Your task to perform on an android device: turn on notifications settings in the gmail app Image 0: 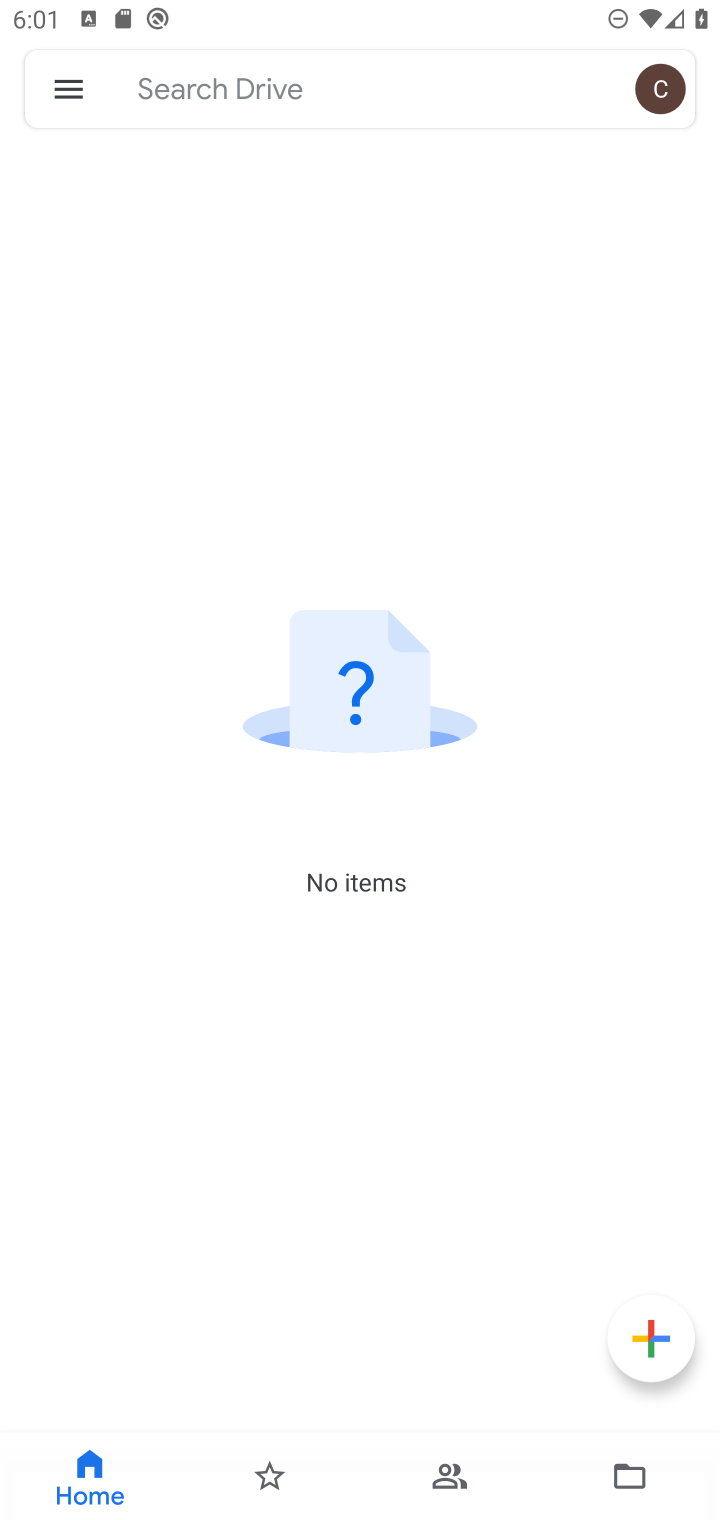
Step 0: press home button
Your task to perform on an android device: turn on notifications settings in the gmail app Image 1: 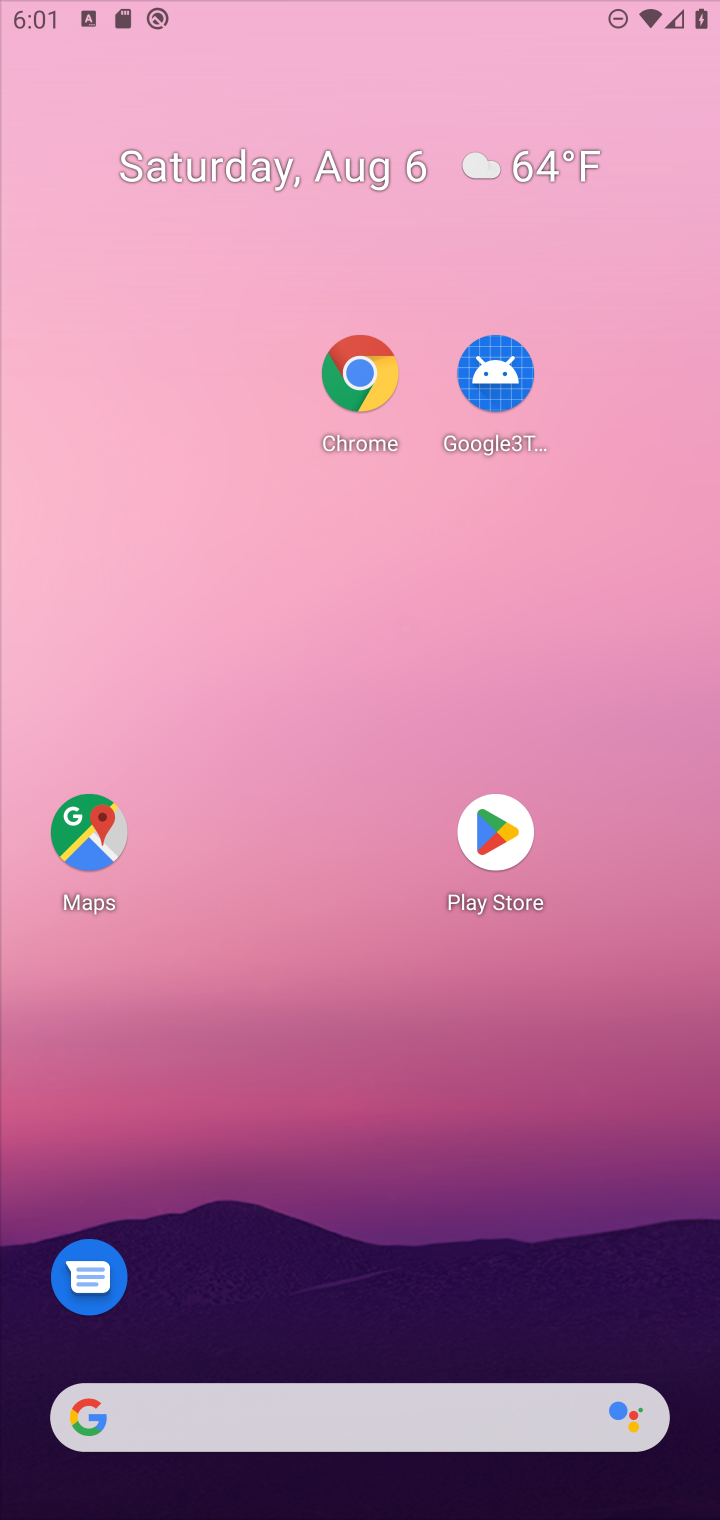
Step 1: drag from (393, 1392) to (393, 121)
Your task to perform on an android device: turn on notifications settings in the gmail app Image 2: 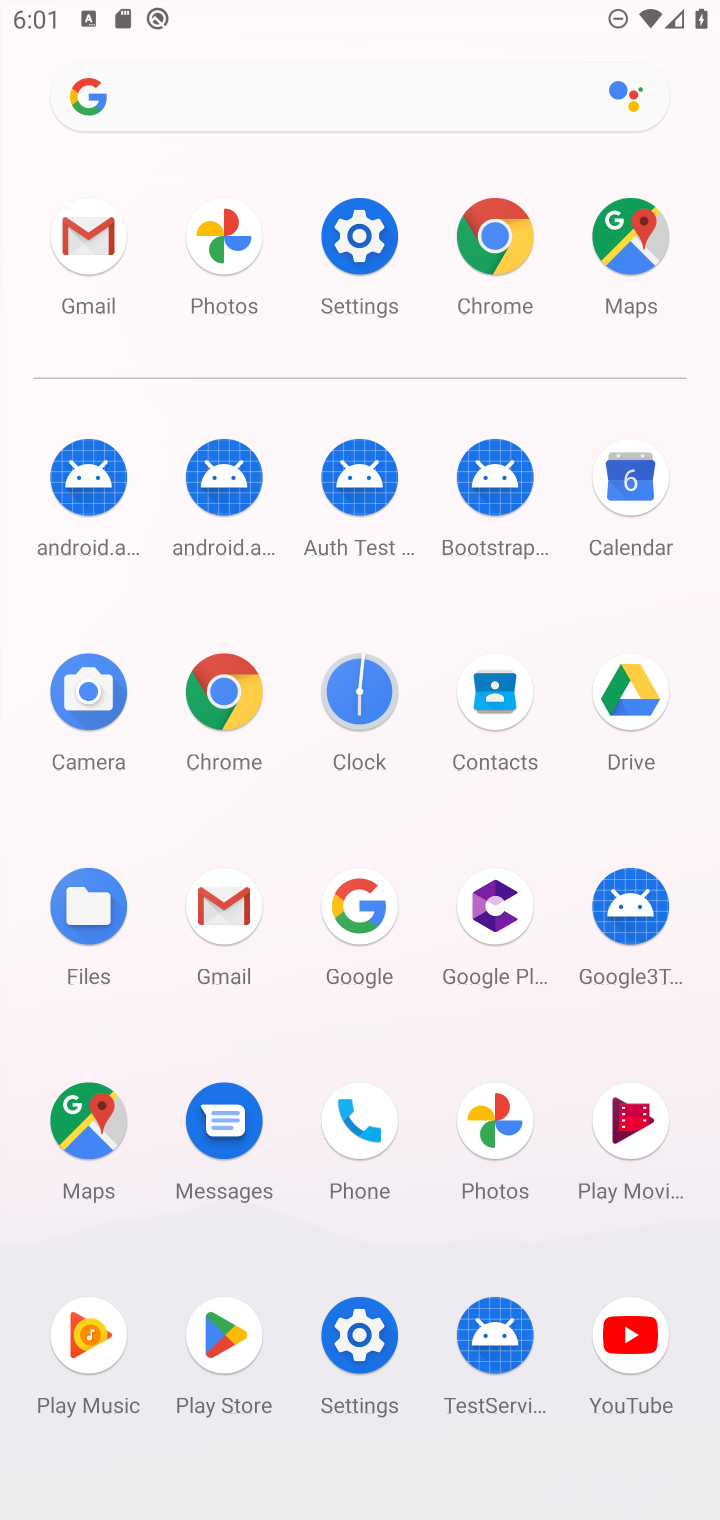
Step 2: click (208, 894)
Your task to perform on an android device: turn on notifications settings in the gmail app Image 3: 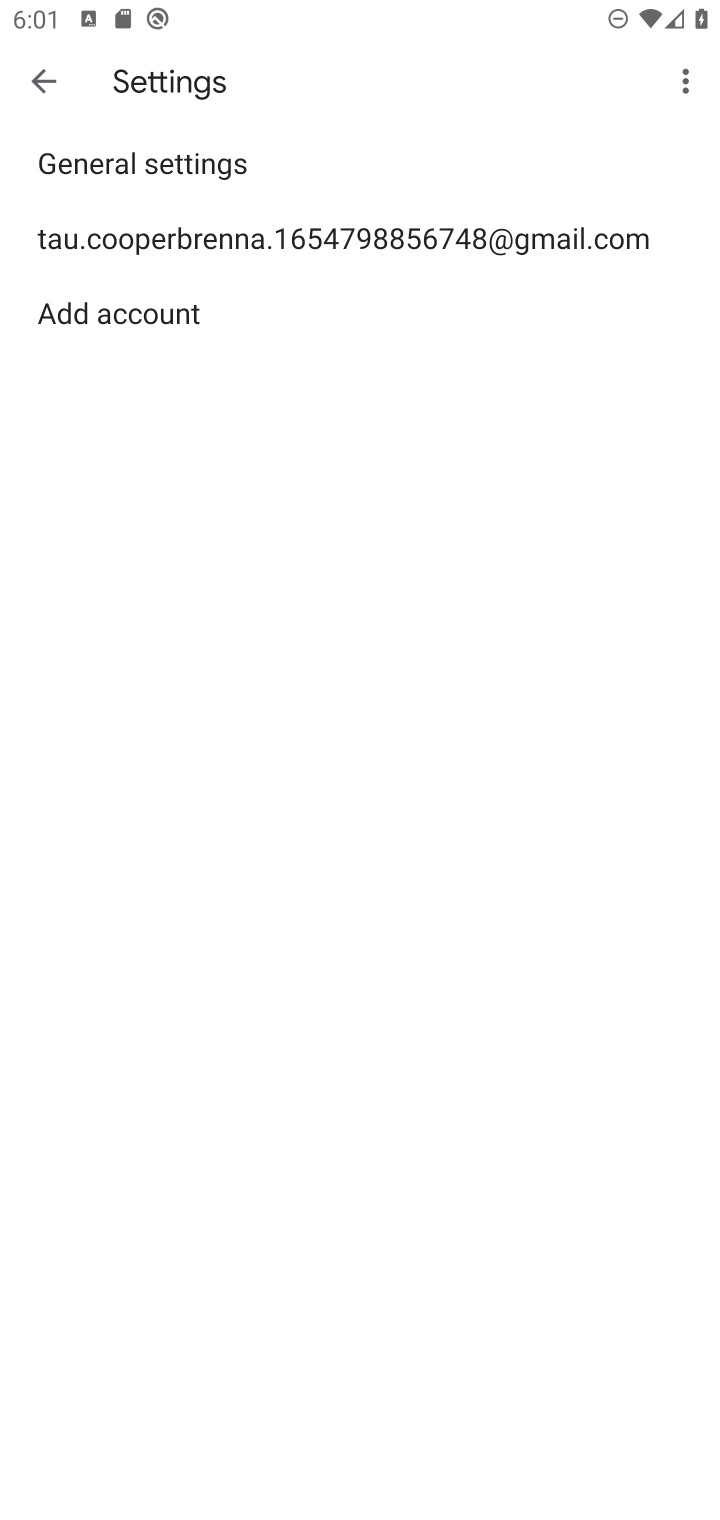
Step 3: click (297, 227)
Your task to perform on an android device: turn on notifications settings in the gmail app Image 4: 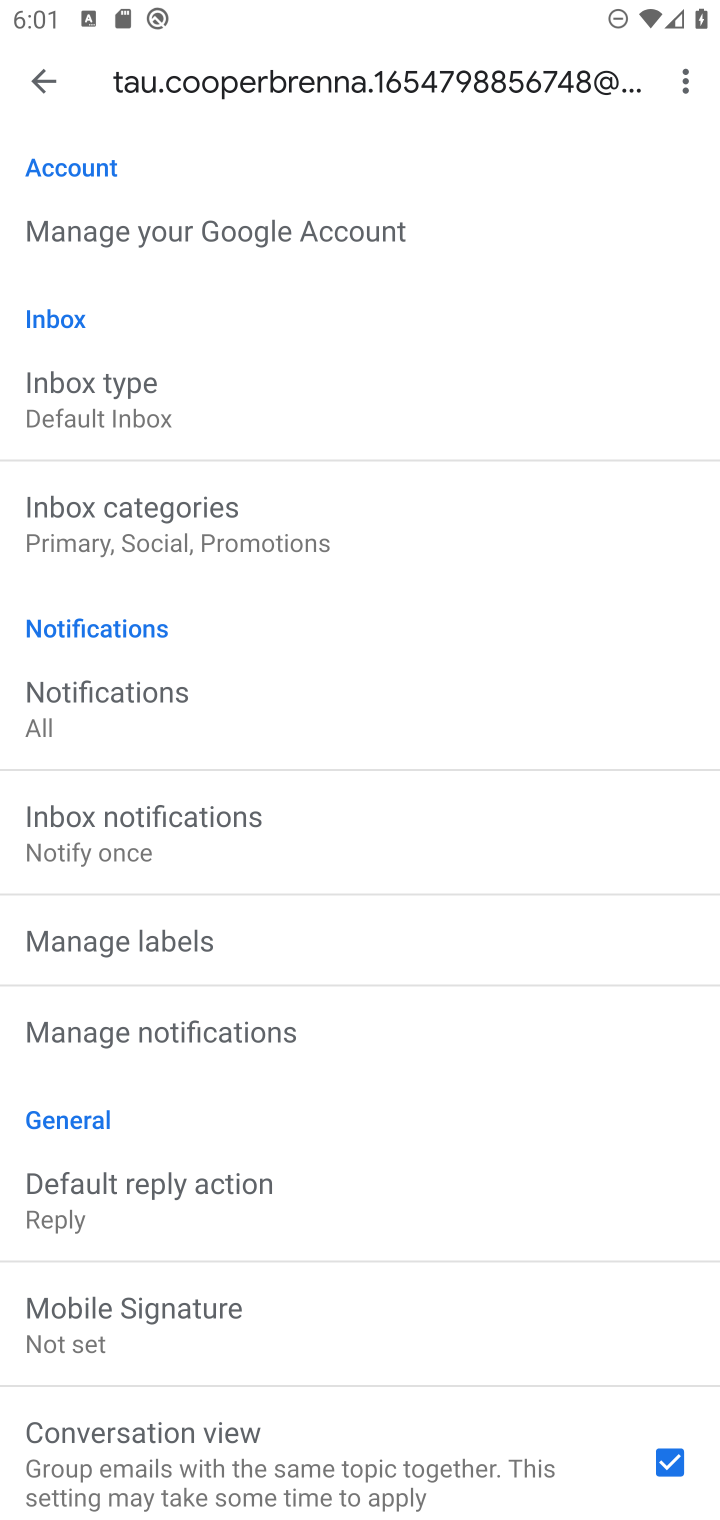
Step 4: click (187, 1012)
Your task to perform on an android device: turn on notifications settings in the gmail app Image 5: 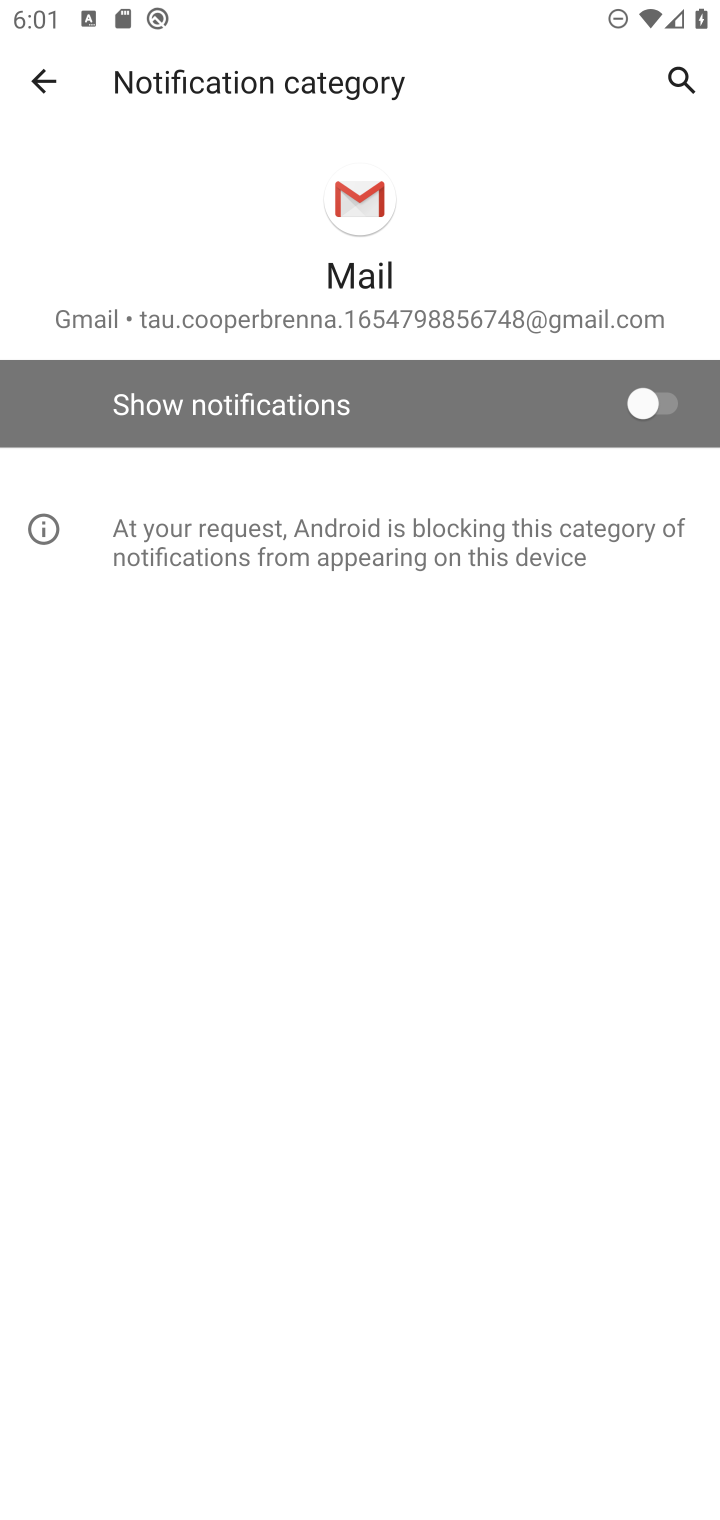
Step 5: click (656, 394)
Your task to perform on an android device: turn on notifications settings in the gmail app Image 6: 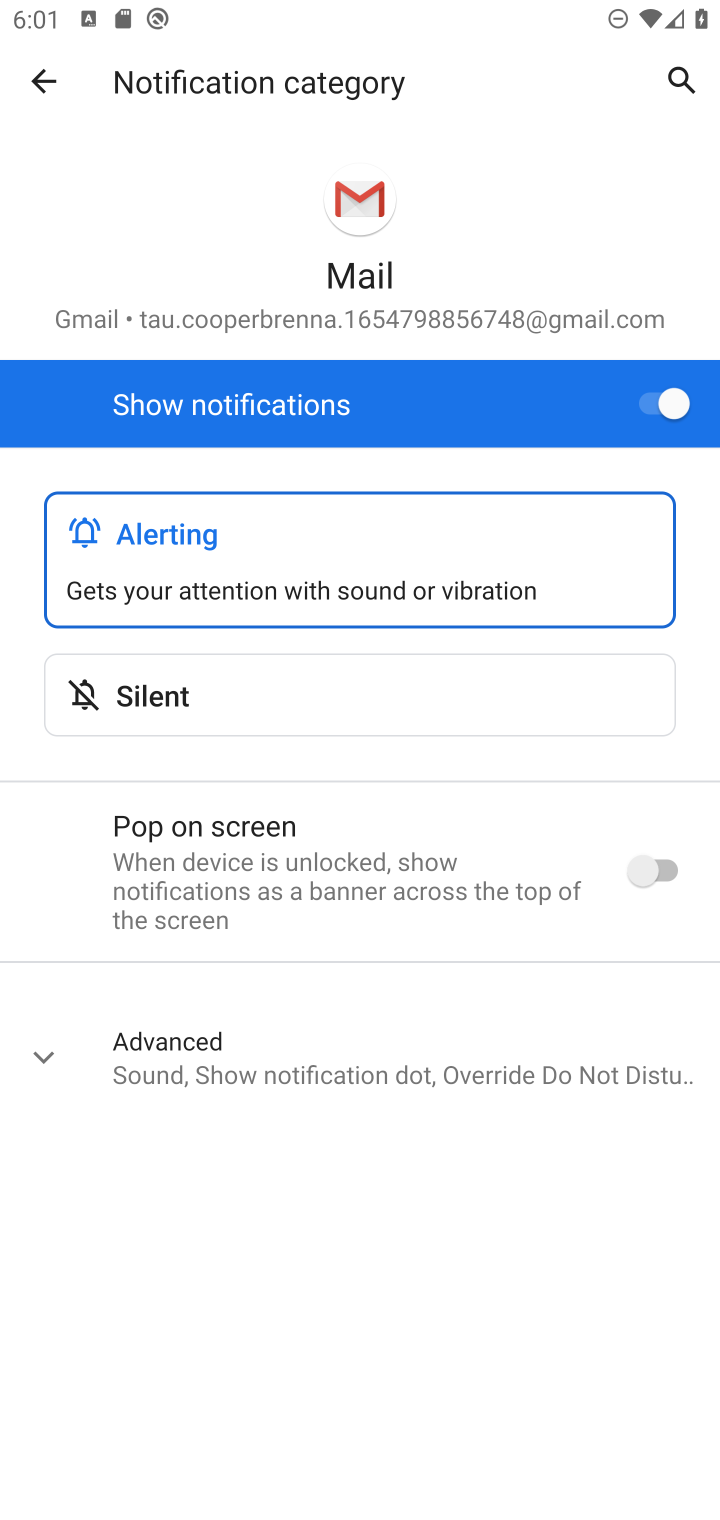
Step 6: task complete